Your task to perform on an android device: find snoozed emails in the gmail app Image 0: 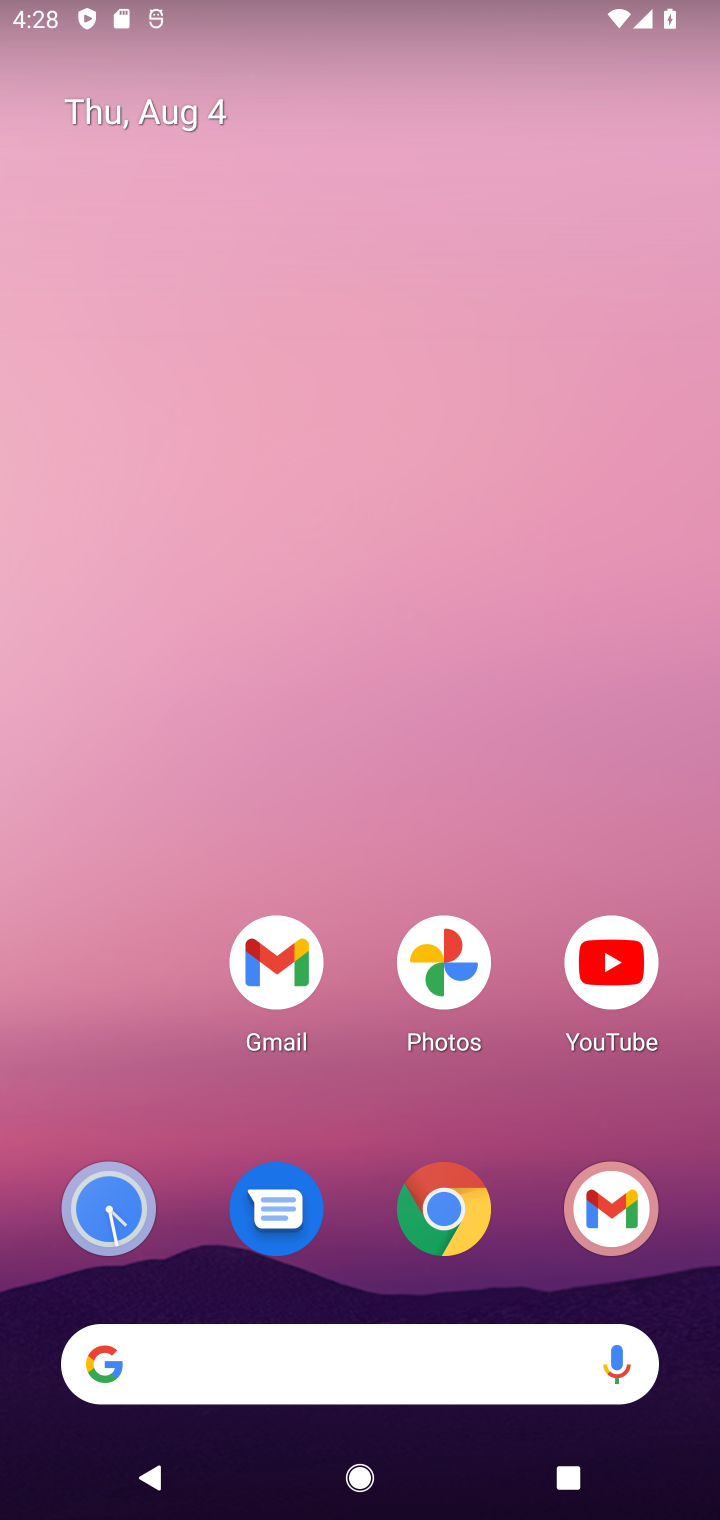
Step 0: click (266, 971)
Your task to perform on an android device: find snoozed emails in the gmail app Image 1: 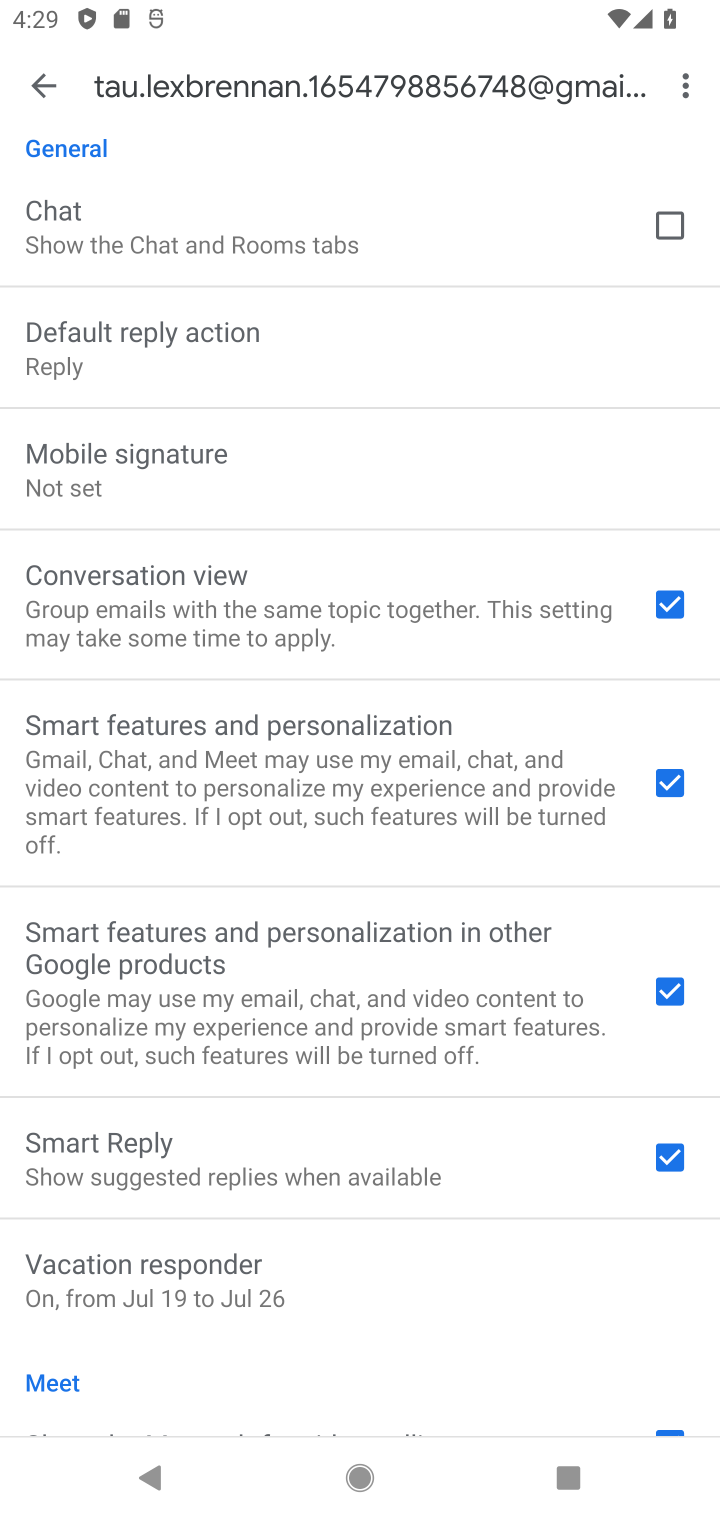
Step 1: drag from (434, 572) to (418, 1058)
Your task to perform on an android device: find snoozed emails in the gmail app Image 2: 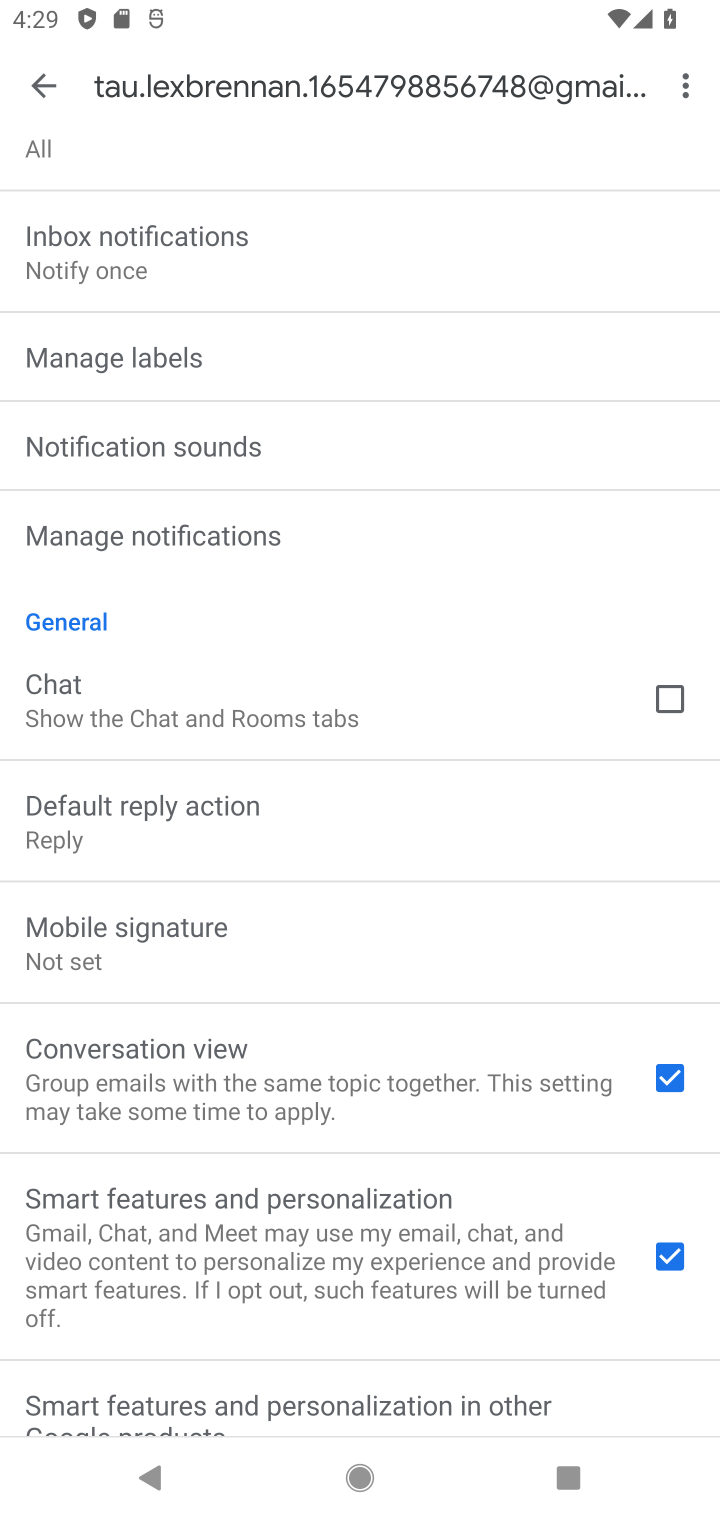
Step 2: press back button
Your task to perform on an android device: find snoozed emails in the gmail app Image 3: 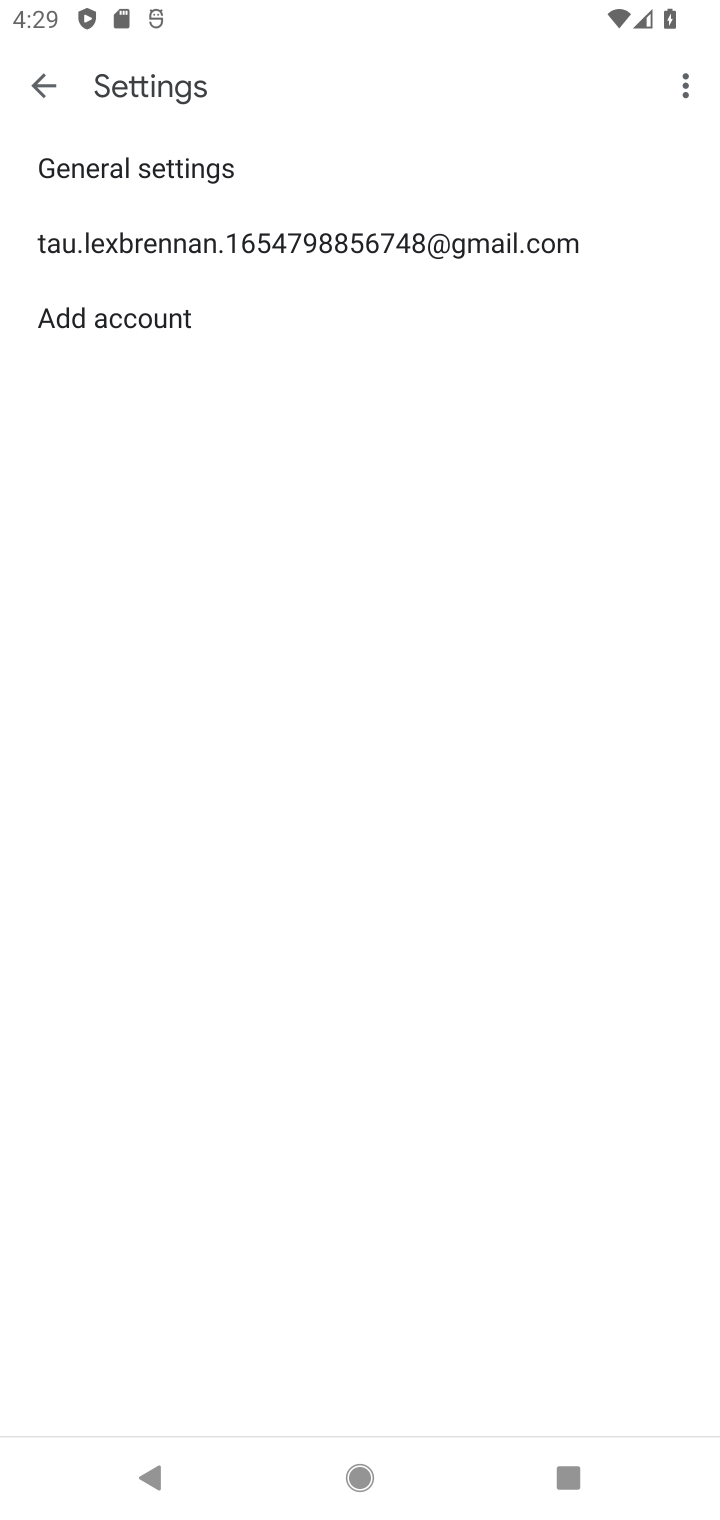
Step 3: click (53, 81)
Your task to perform on an android device: find snoozed emails in the gmail app Image 4: 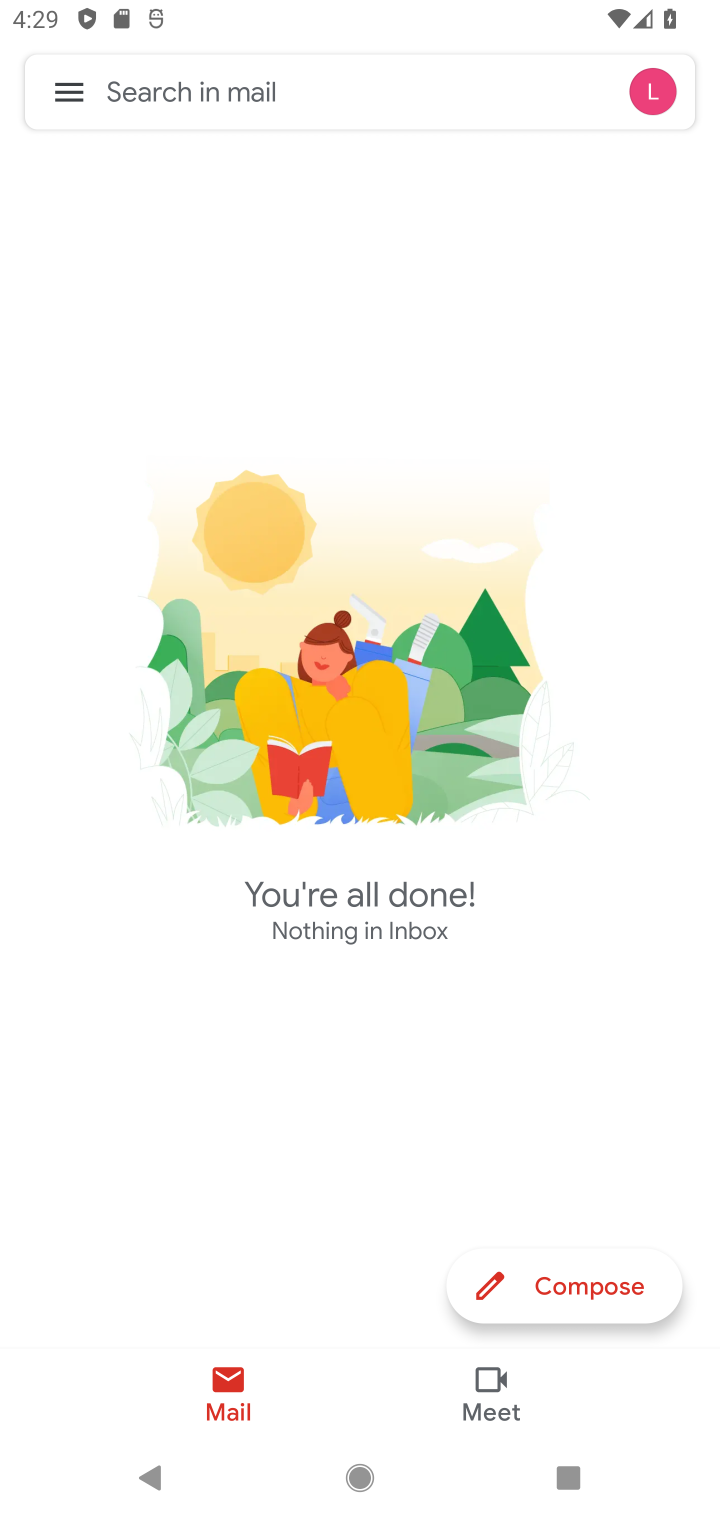
Step 4: click (76, 93)
Your task to perform on an android device: find snoozed emails in the gmail app Image 5: 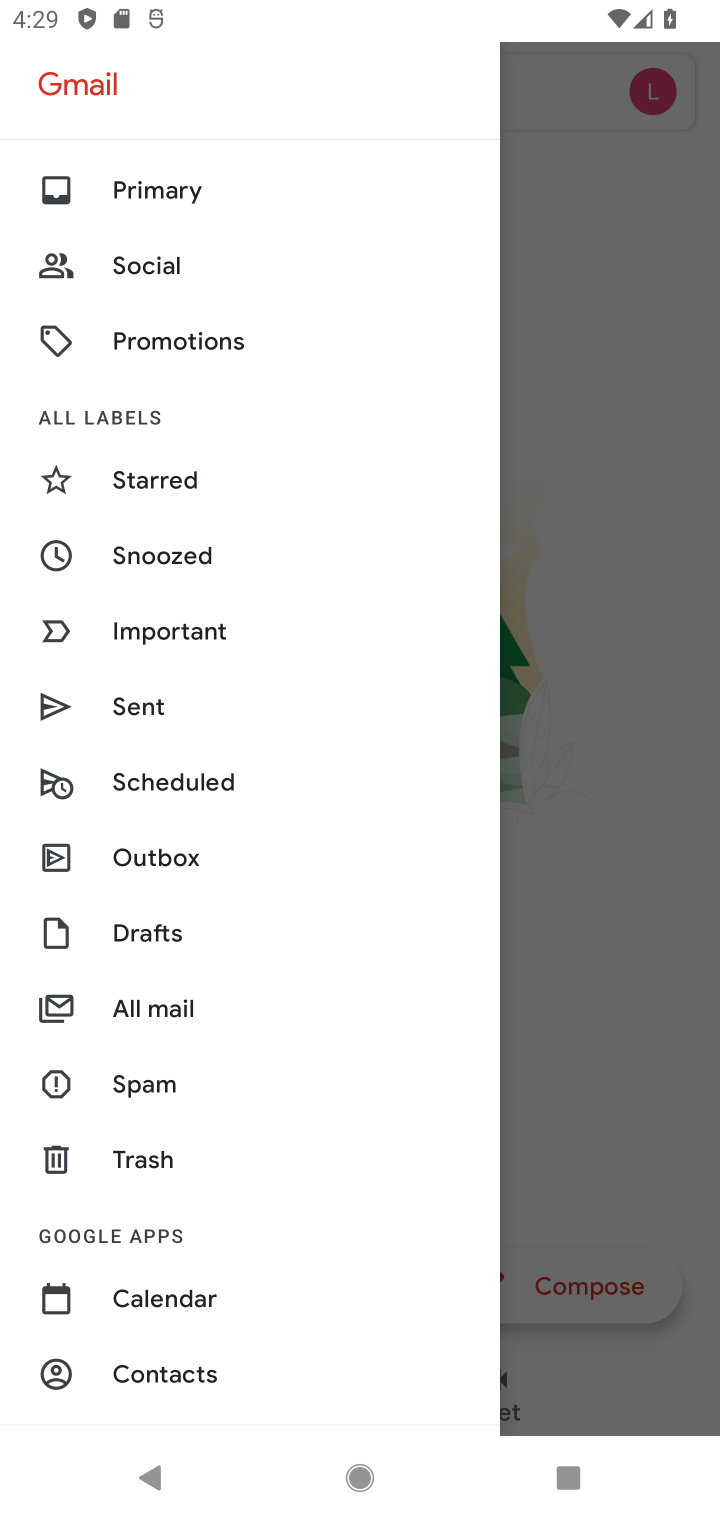
Step 5: click (143, 544)
Your task to perform on an android device: find snoozed emails in the gmail app Image 6: 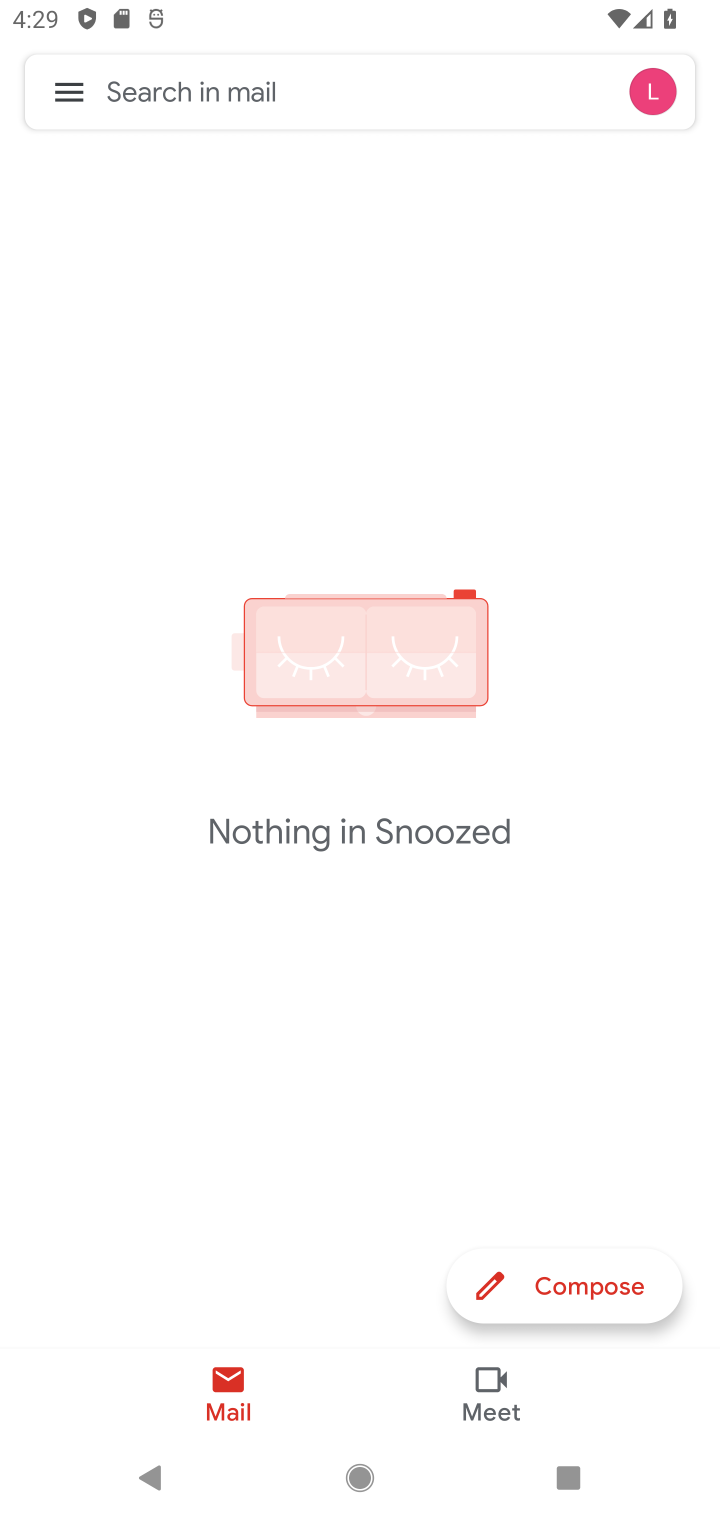
Step 6: task complete